Your task to perform on an android device: Open calendar and show me the first week of next month Image 0: 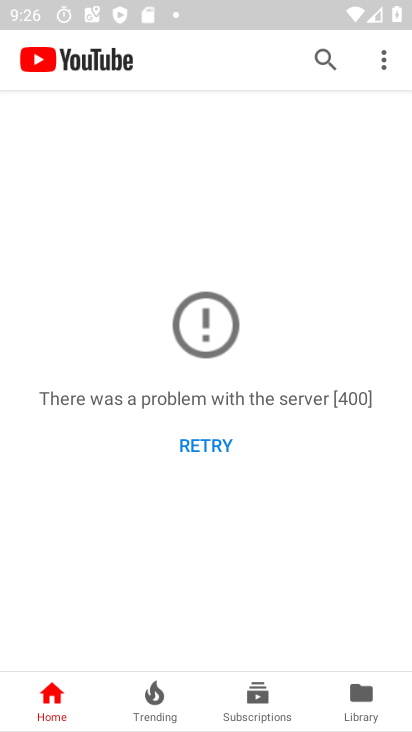
Step 0: click (269, 475)
Your task to perform on an android device: Open calendar and show me the first week of next month Image 1: 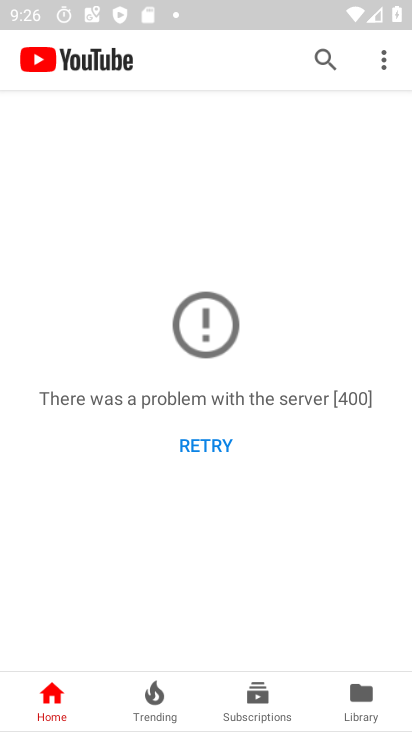
Step 1: press home button
Your task to perform on an android device: Open calendar and show me the first week of next month Image 2: 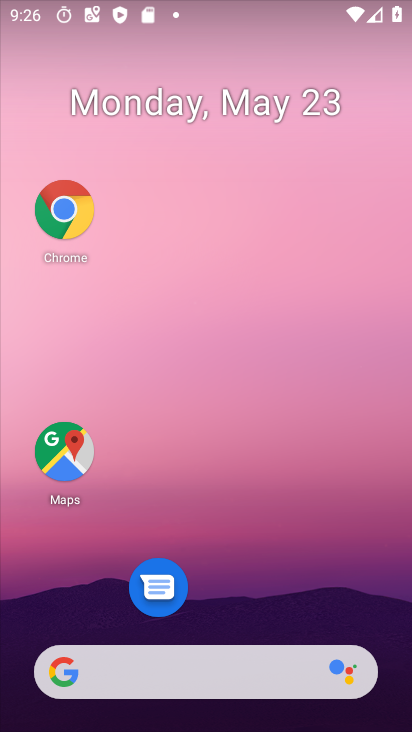
Step 2: drag from (268, 605) to (118, 4)
Your task to perform on an android device: Open calendar and show me the first week of next month Image 3: 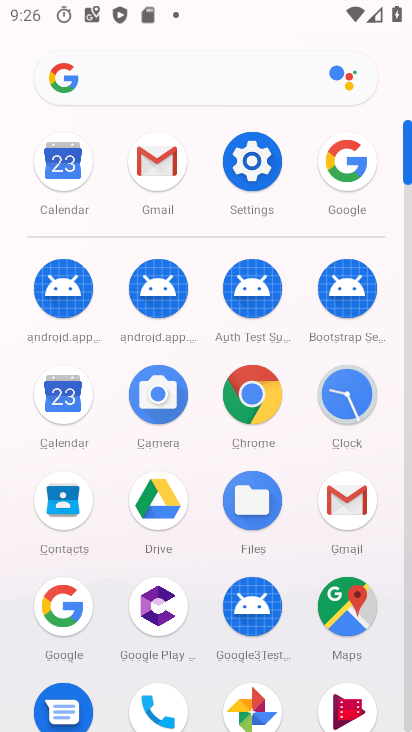
Step 3: click (63, 394)
Your task to perform on an android device: Open calendar and show me the first week of next month Image 4: 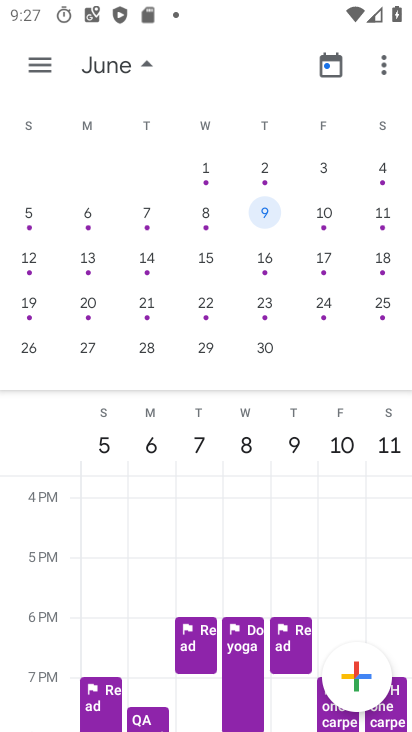
Step 4: click (204, 162)
Your task to perform on an android device: Open calendar and show me the first week of next month Image 5: 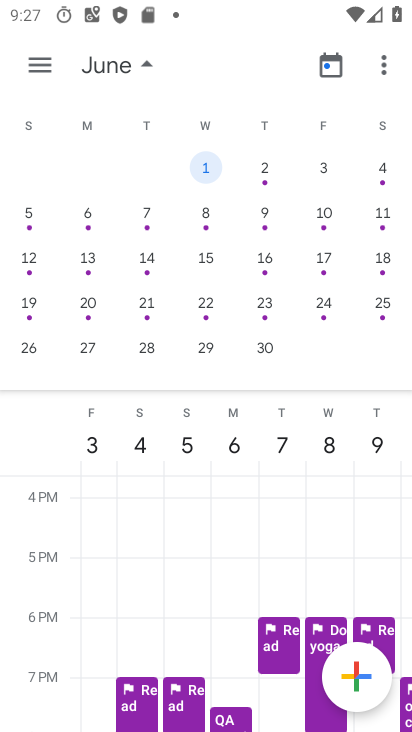
Step 5: click (204, 162)
Your task to perform on an android device: Open calendar and show me the first week of next month Image 6: 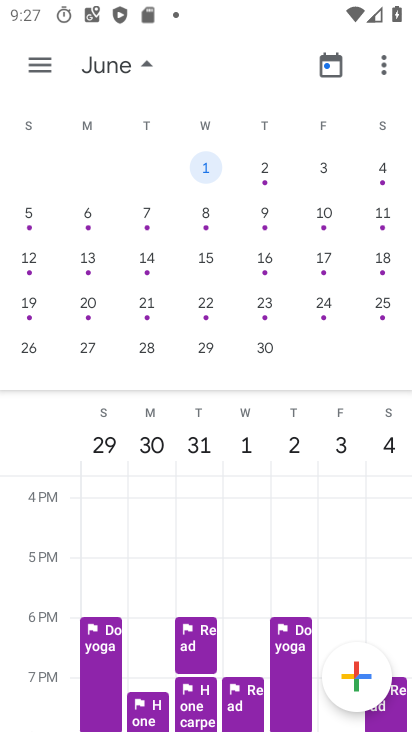
Step 6: task complete